Your task to perform on an android device: Clear the shopping cart on amazon. Image 0: 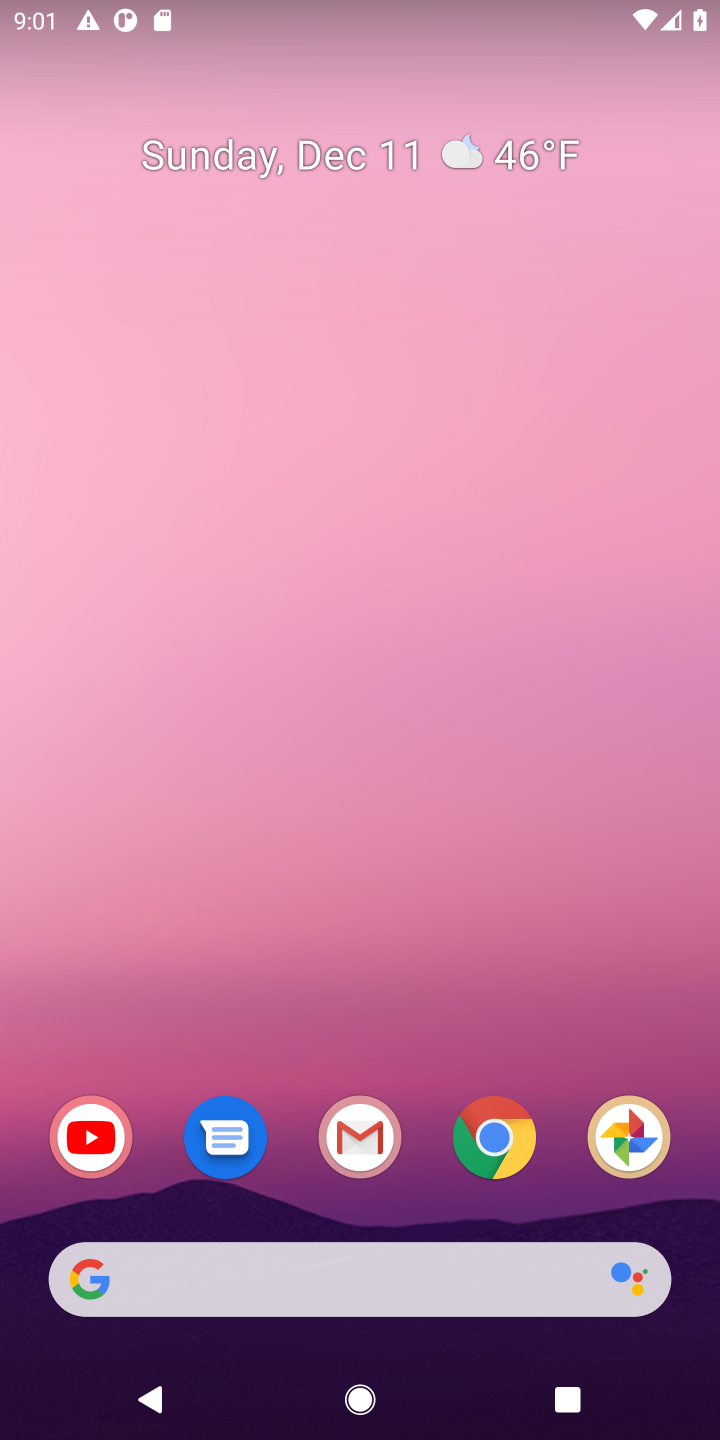
Step 0: click (491, 1140)
Your task to perform on an android device: Clear the shopping cart on amazon. Image 1: 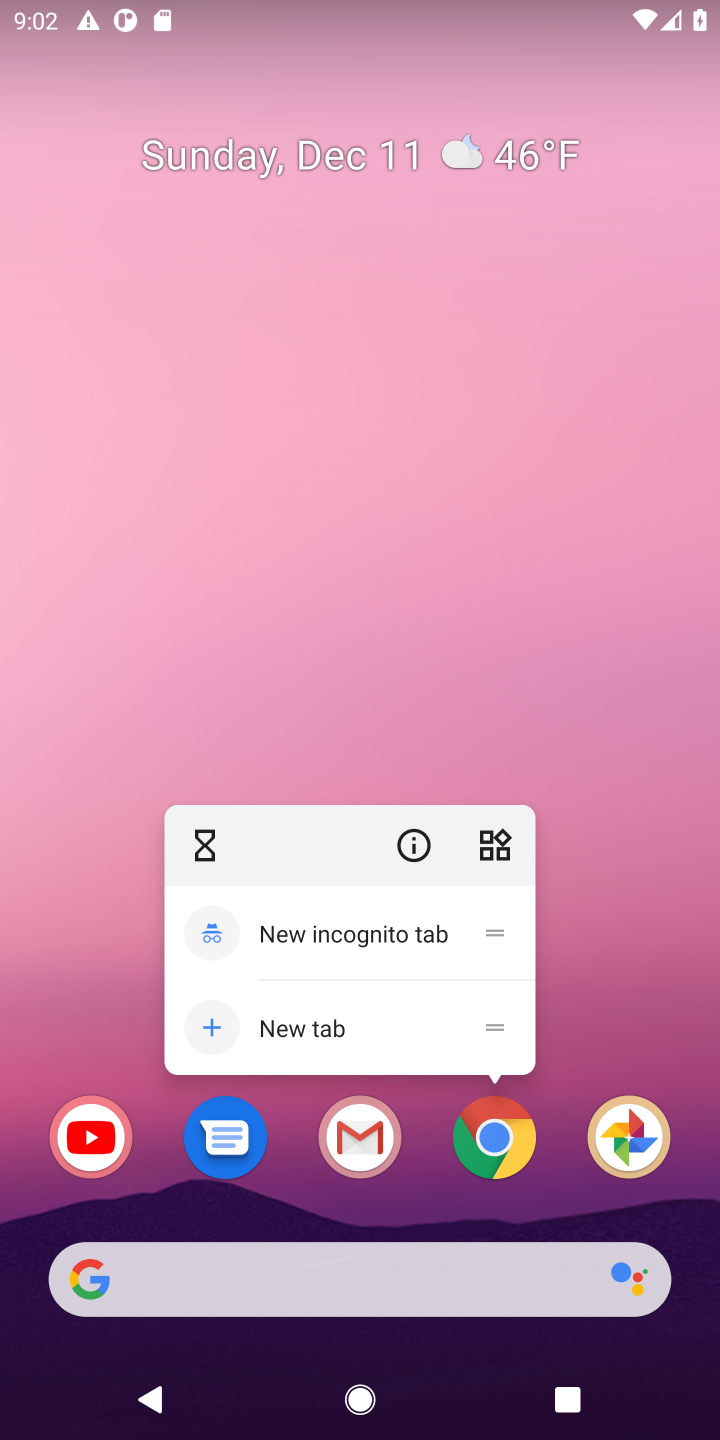
Step 1: click (491, 1140)
Your task to perform on an android device: Clear the shopping cart on amazon. Image 2: 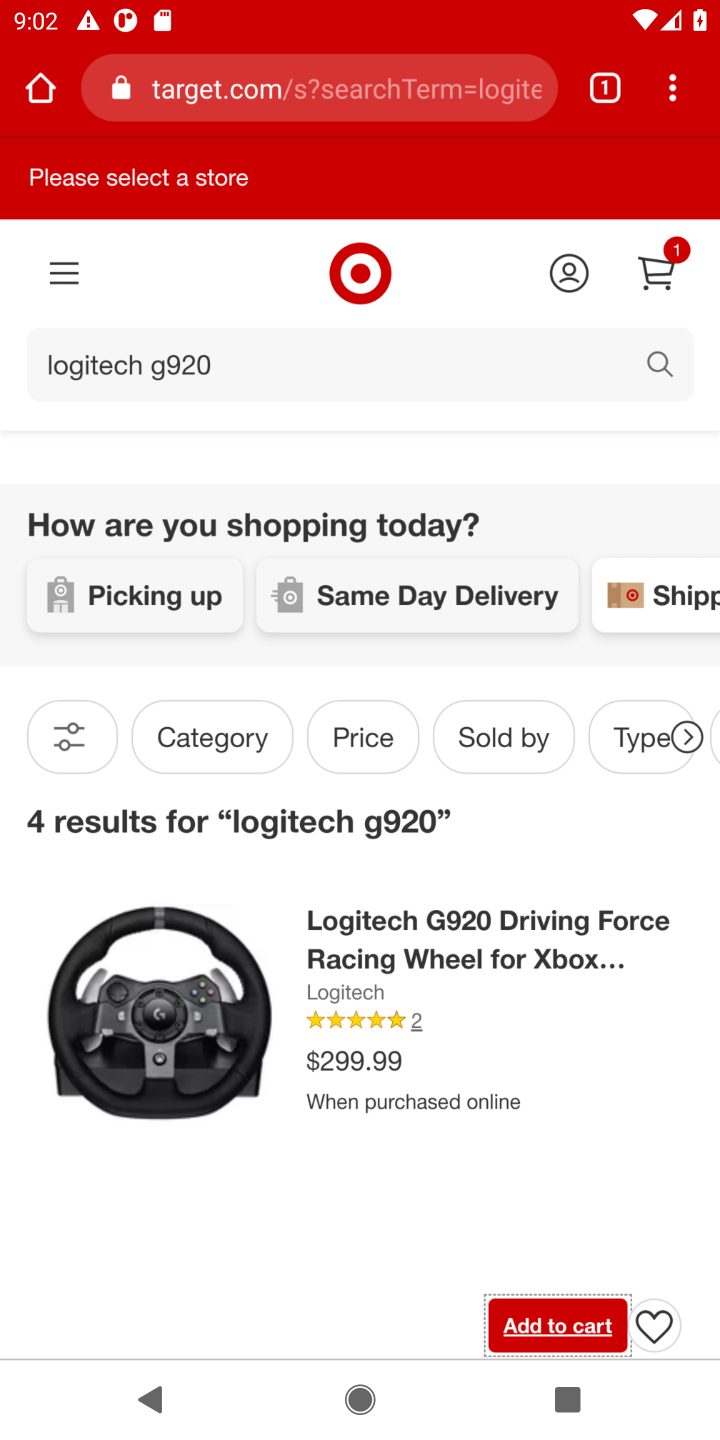
Step 2: click (491, 1140)
Your task to perform on an android device: Clear the shopping cart on amazon. Image 3: 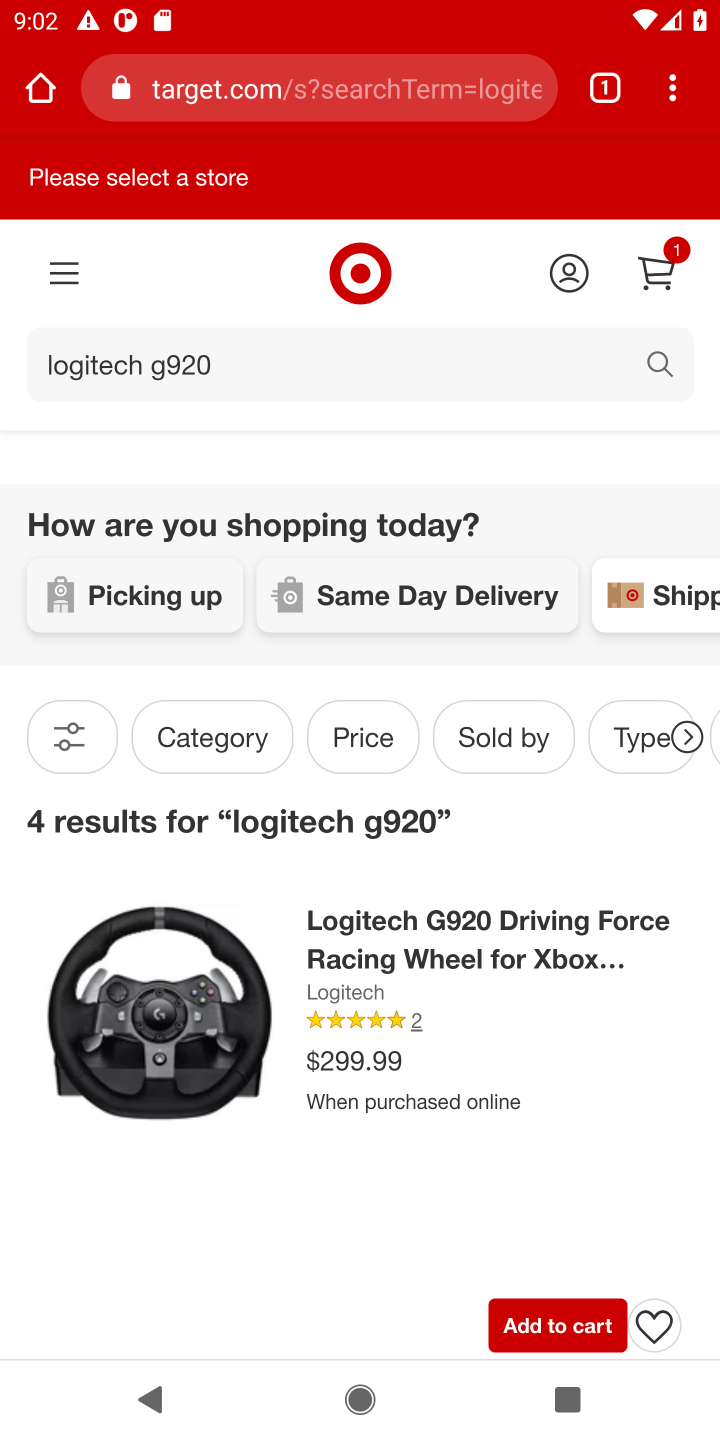
Step 3: click (324, 88)
Your task to perform on an android device: Clear the shopping cart on amazon. Image 4: 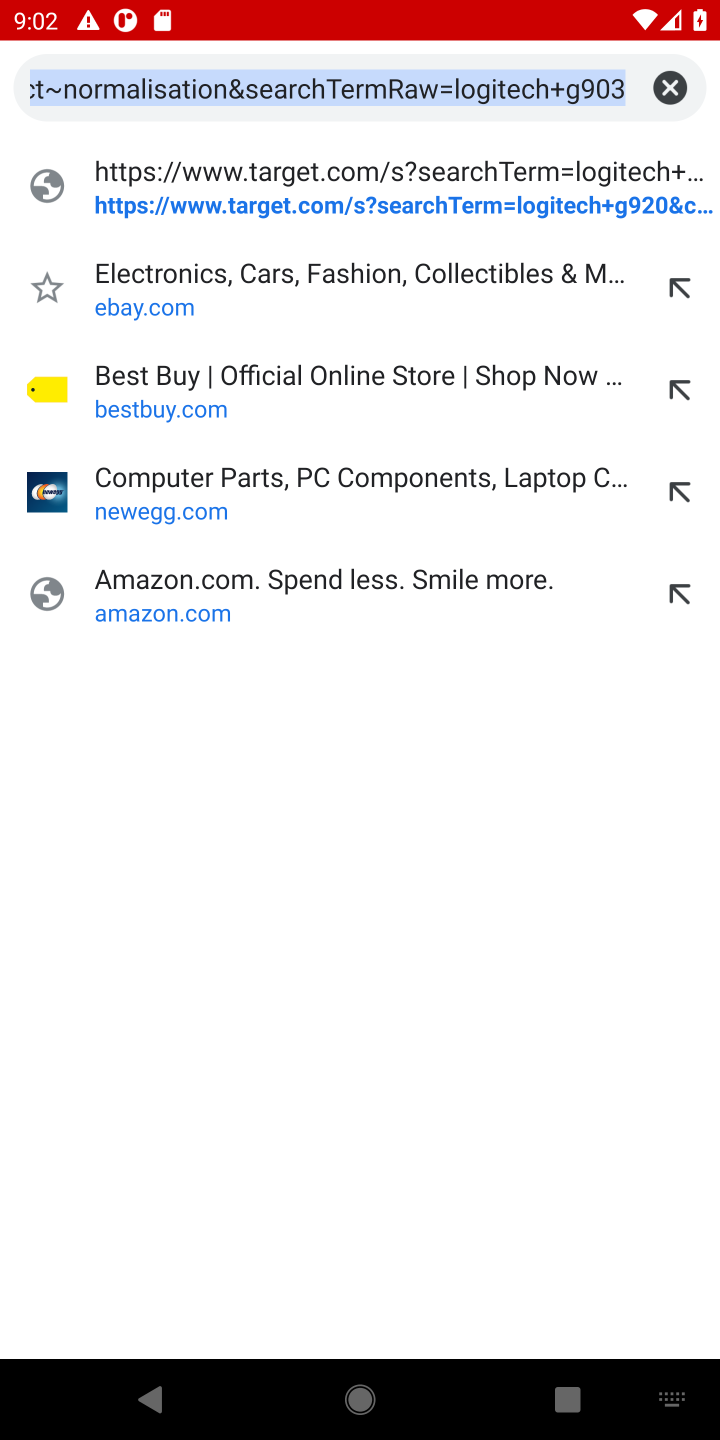
Step 4: click (186, 598)
Your task to perform on an android device: Clear the shopping cart on amazon. Image 5: 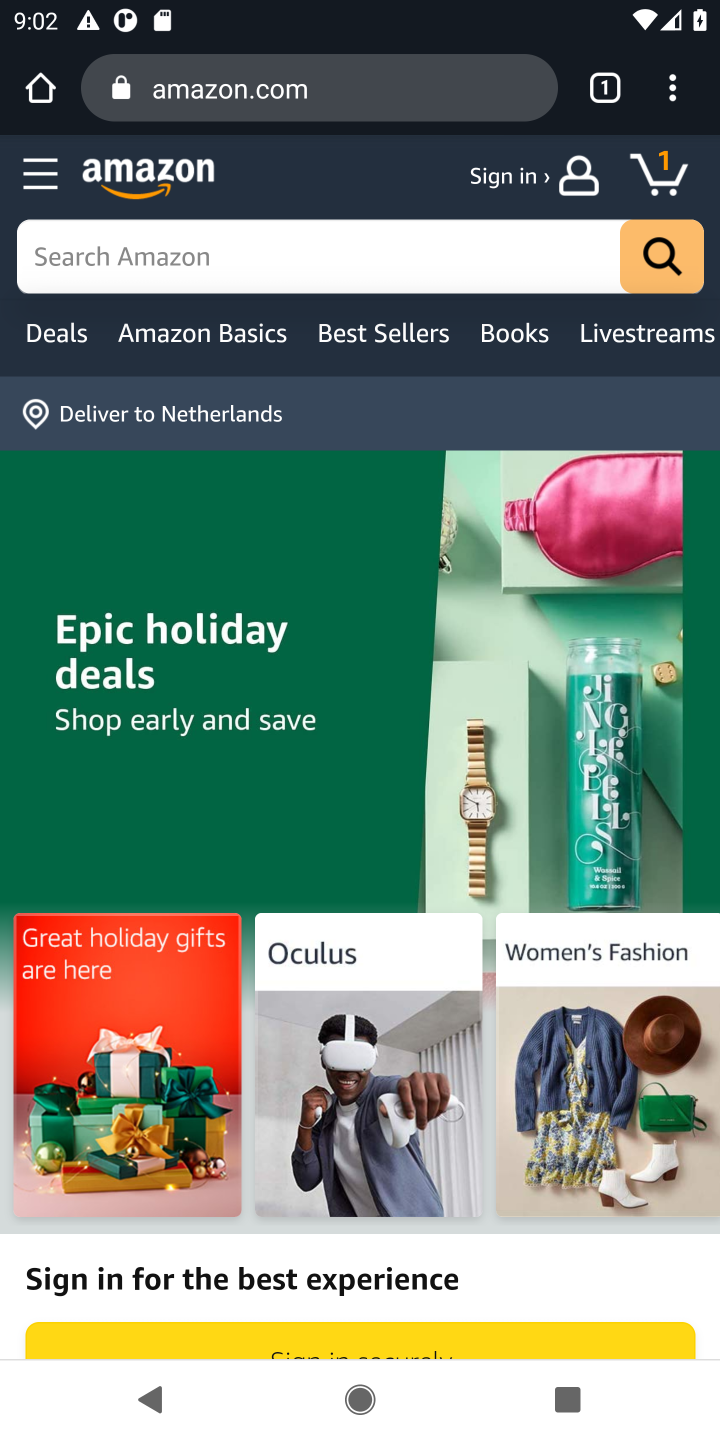
Step 5: click (660, 179)
Your task to perform on an android device: Clear the shopping cart on amazon. Image 6: 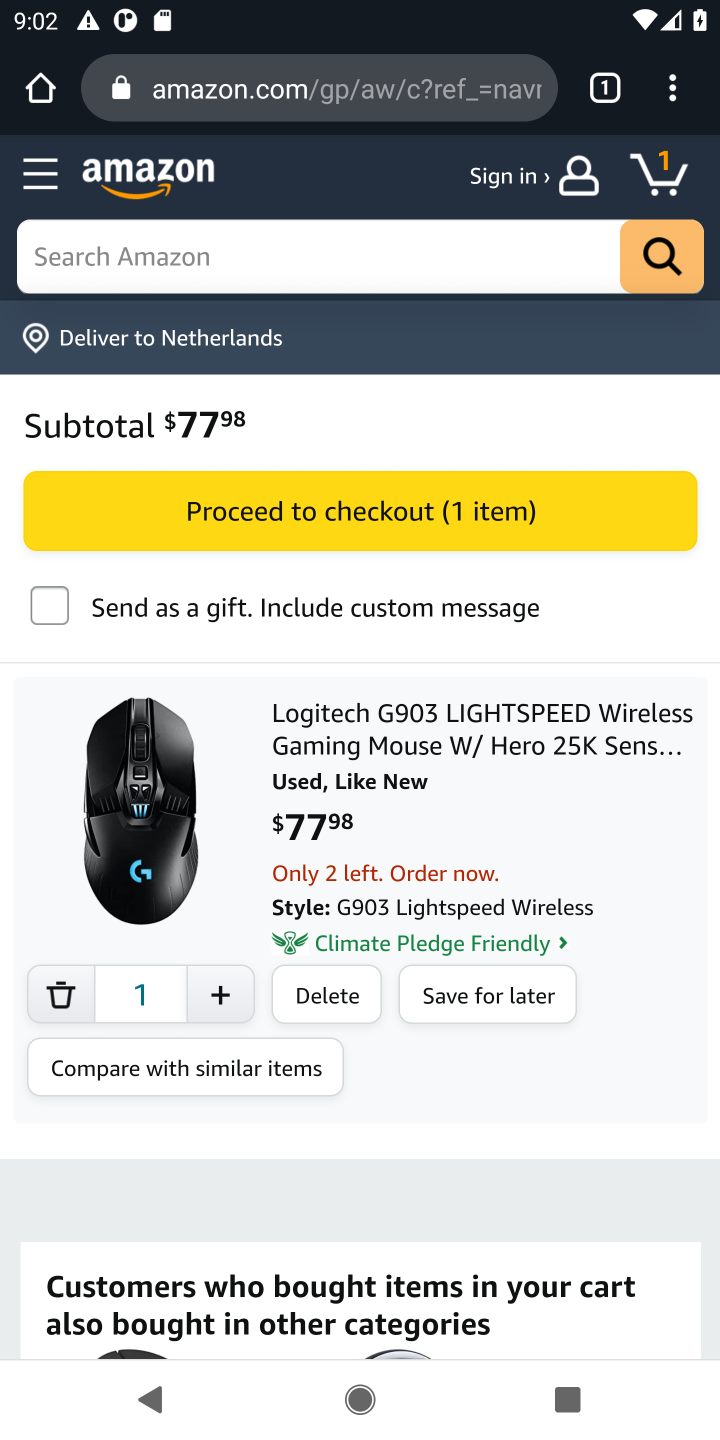
Step 6: click (317, 995)
Your task to perform on an android device: Clear the shopping cart on amazon. Image 7: 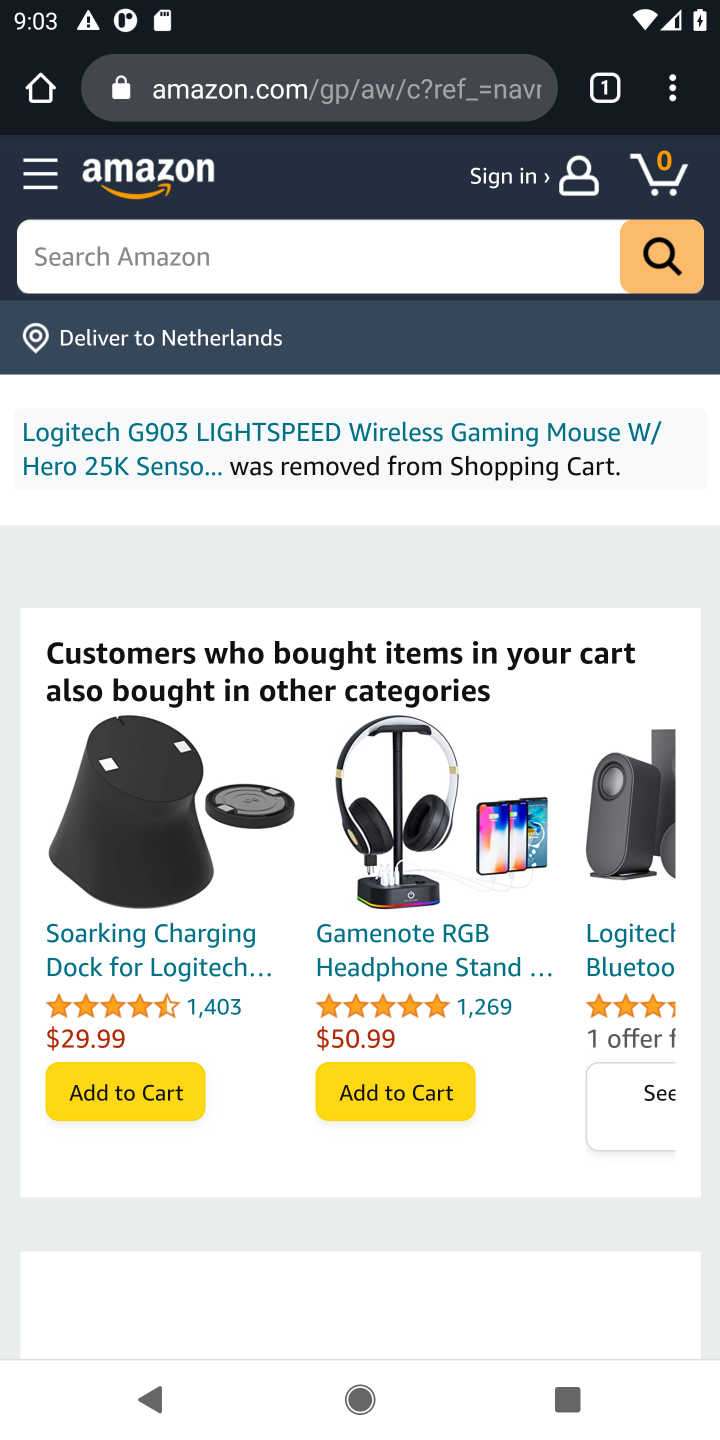
Step 7: task complete